Your task to perform on an android device: open a bookmark in the chrome app Image 0: 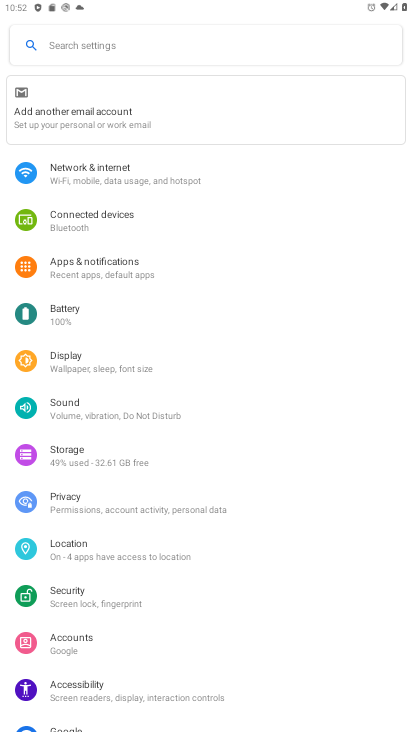
Step 0: task complete